Your task to perform on an android device: remove spam from my inbox in the gmail app Image 0: 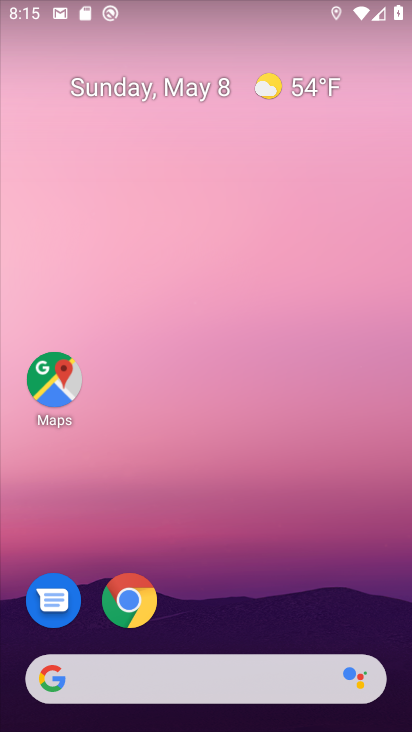
Step 0: drag from (295, 582) to (225, 244)
Your task to perform on an android device: remove spam from my inbox in the gmail app Image 1: 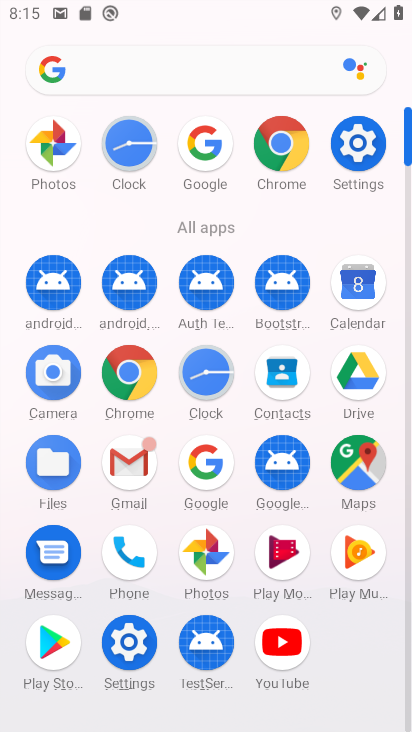
Step 1: click (125, 483)
Your task to perform on an android device: remove spam from my inbox in the gmail app Image 2: 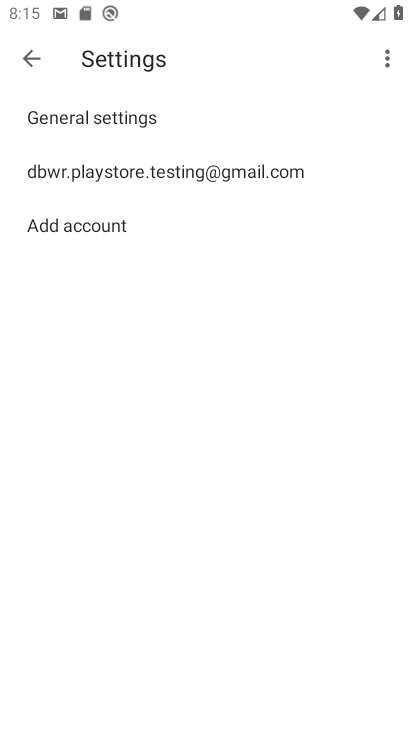
Step 2: click (33, 53)
Your task to perform on an android device: remove spam from my inbox in the gmail app Image 3: 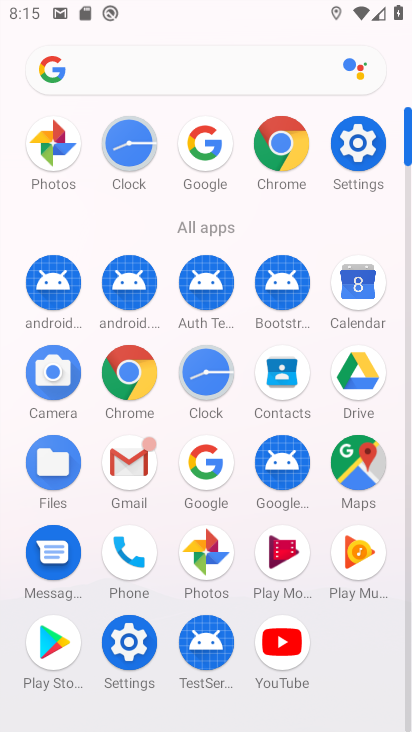
Step 3: click (140, 473)
Your task to perform on an android device: remove spam from my inbox in the gmail app Image 4: 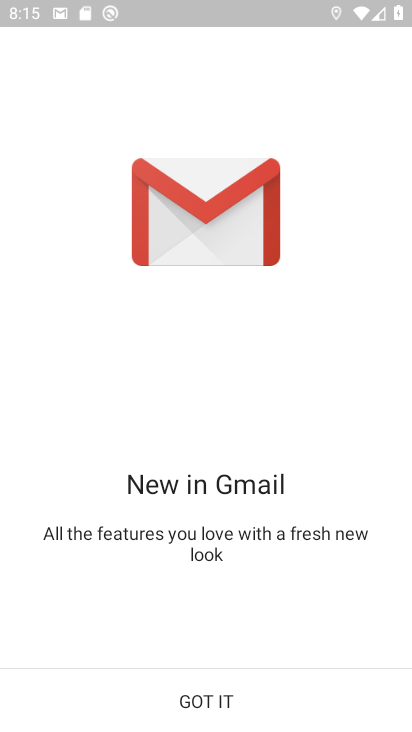
Step 4: click (190, 711)
Your task to perform on an android device: remove spam from my inbox in the gmail app Image 5: 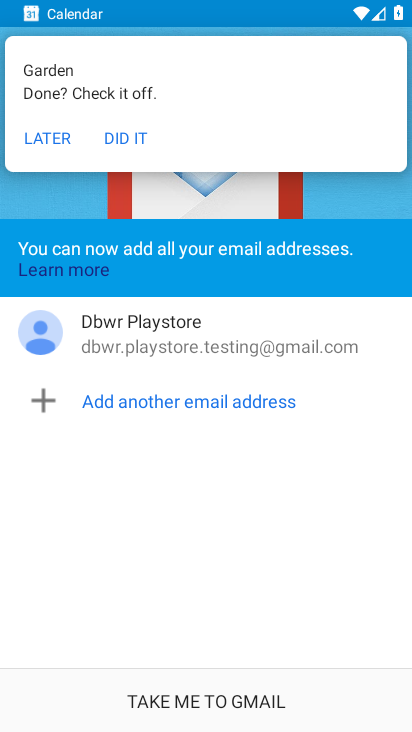
Step 5: click (226, 695)
Your task to perform on an android device: remove spam from my inbox in the gmail app Image 6: 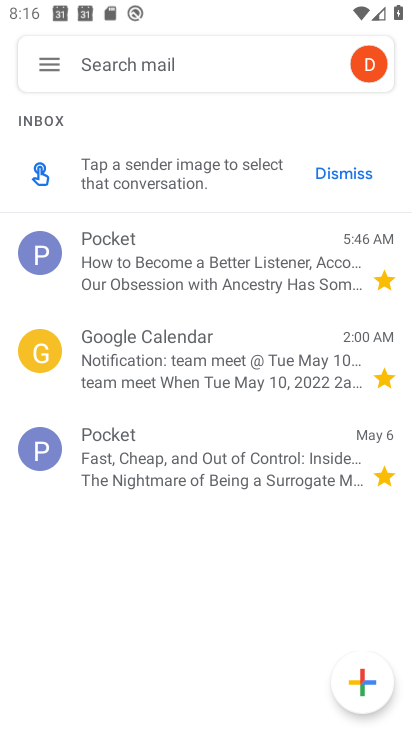
Step 6: click (43, 60)
Your task to perform on an android device: remove spam from my inbox in the gmail app Image 7: 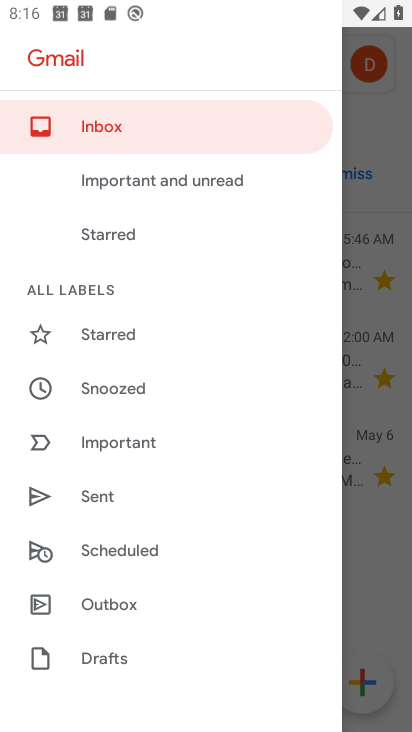
Step 7: drag from (164, 573) to (143, 146)
Your task to perform on an android device: remove spam from my inbox in the gmail app Image 8: 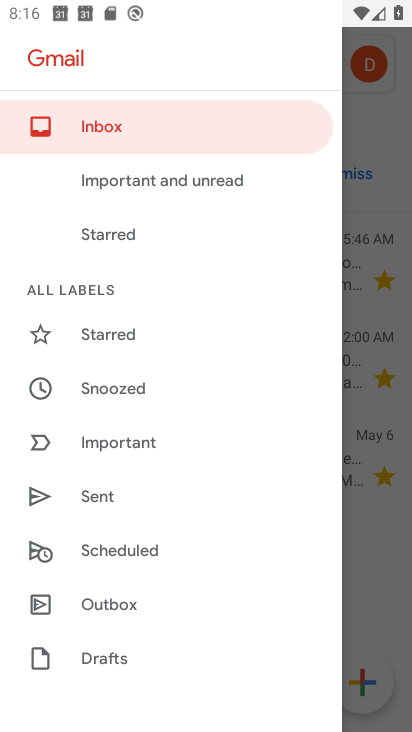
Step 8: drag from (122, 514) to (142, 7)
Your task to perform on an android device: remove spam from my inbox in the gmail app Image 9: 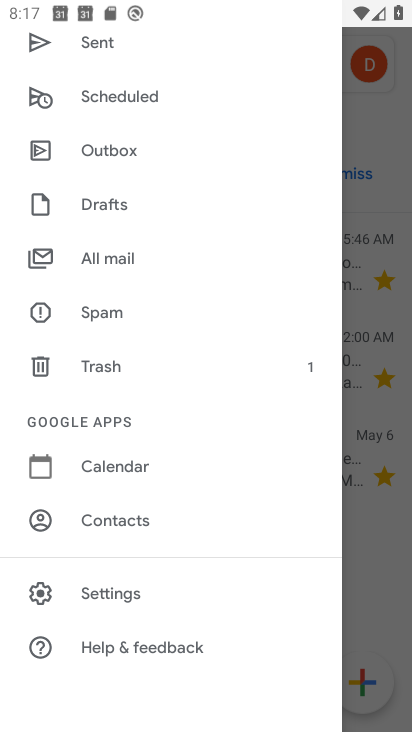
Step 9: click (140, 311)
Your task to perform on an android device: remove spam from my inbox in the gmail app Image 10: 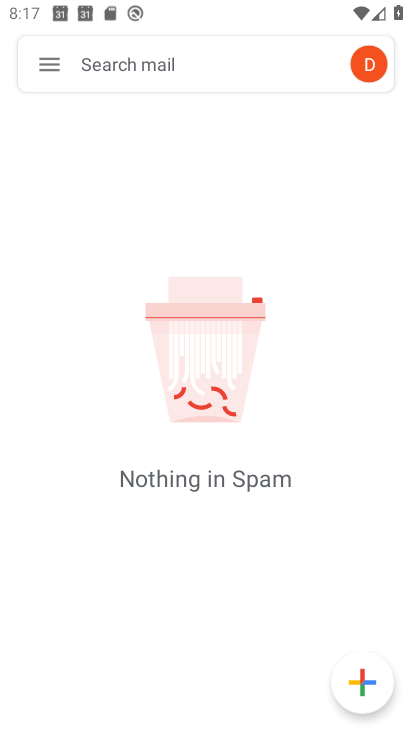
Step 10: task complete